Your task to perform on an android device: Open Android settings Image 0: 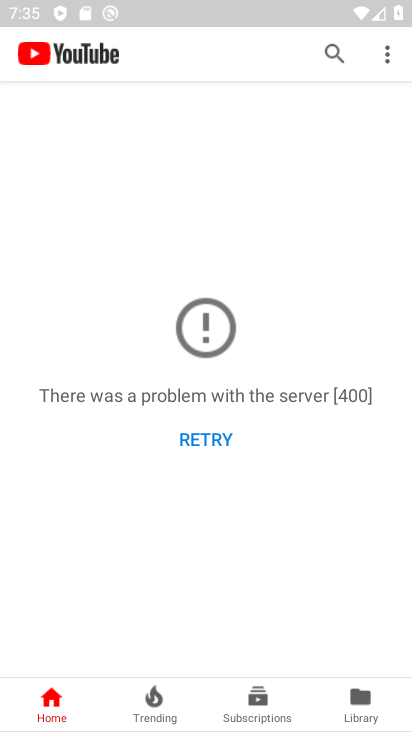
Step 0: press home button
Your task to perform on an android device: Open Android settings Image 1: 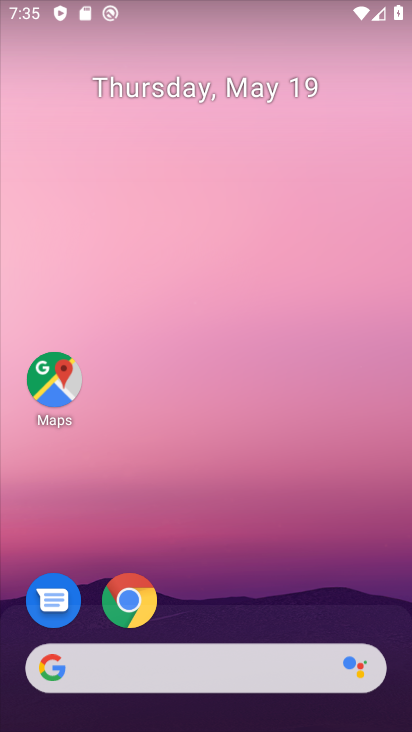
Step 1: drag from (329, 605) to (374, 58)
Your task to perform on an android device: Open Android settings Image 2: 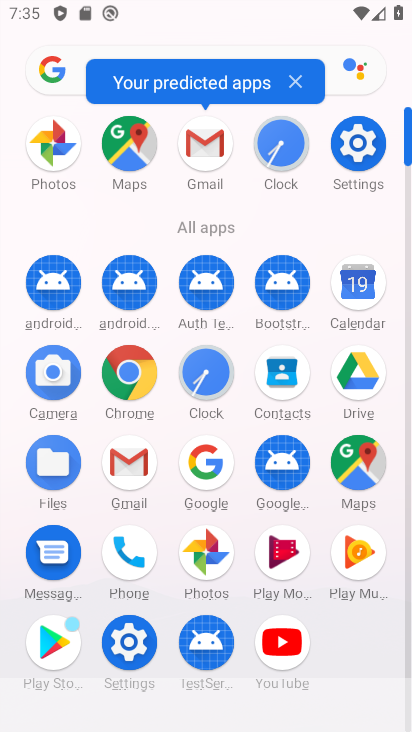
Step 2: click (368, 166)
Your task to perform on an android device: Open Android settings Image 3: 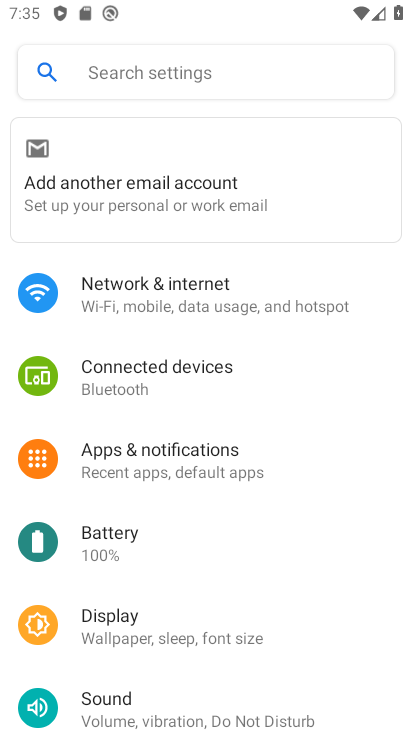
Step 3: drag from (350, 580) to (344, 442)
Your task to perform on an android device: Open Android settings Image 4: 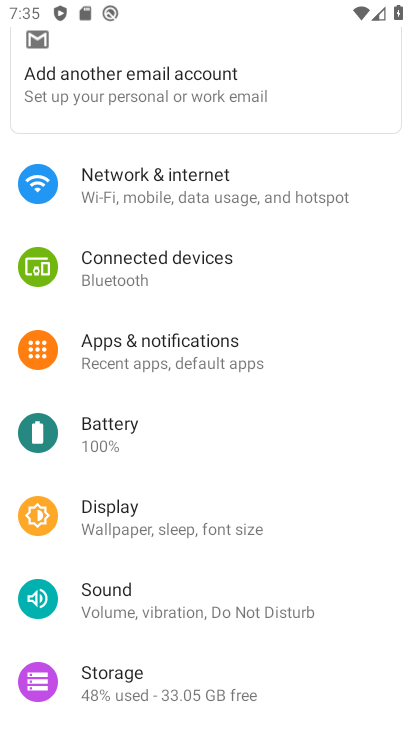
Step 4: drag from (364, 560) to (365, 437)
Your task to perform on an android device: Open Android settings Image 5: 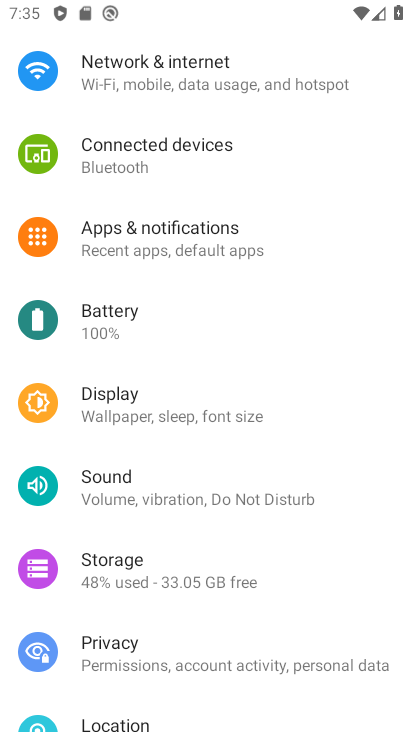
Step 5: drag from (365, 567) to (363, 455)
Your task to perform on an android device: Open Android settings Image 6: 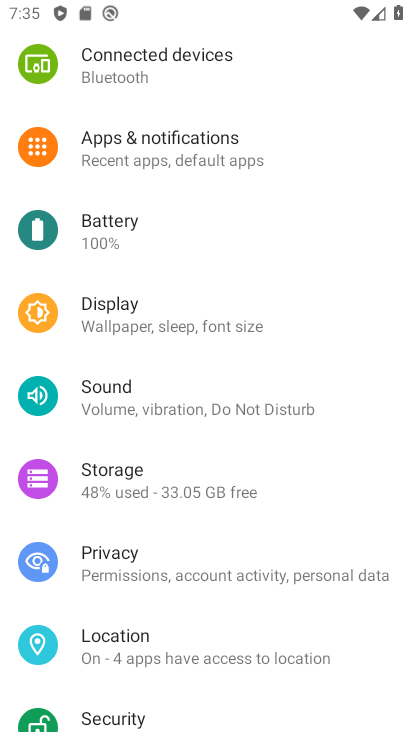
Step 6: drag from (363, 629) to (359, 488)
Your task to perform on an android device: Open Android settings Image 7: 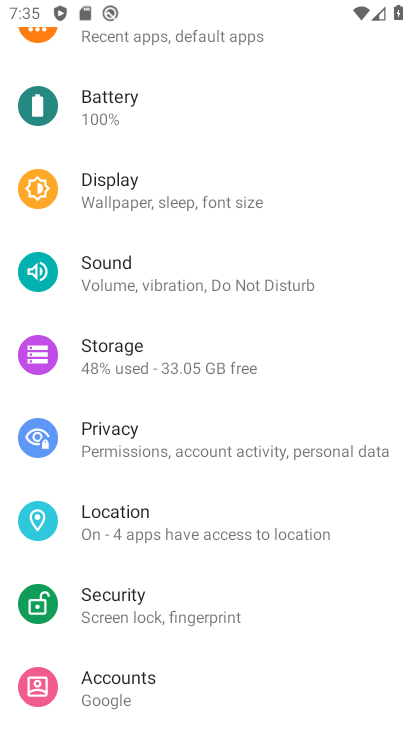
Step 7: drag from (361, 626) to (361, 486)
Your task to perform on an android device: Open Android settings Image 8: 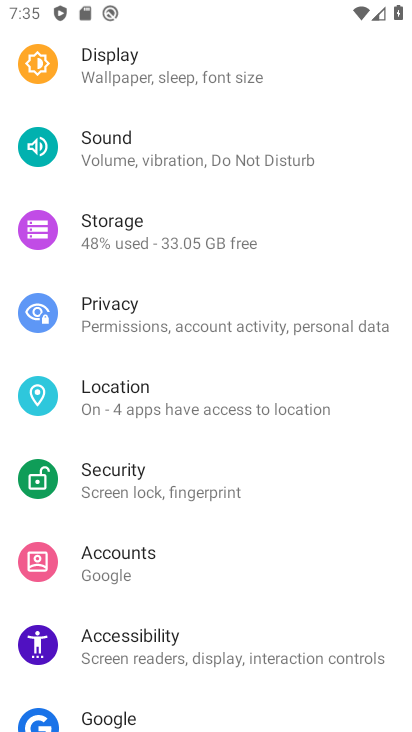
Step 8: drag from (366, 606) to (367, 396)
Your task to perform on an android device: Open Android settings Image 9: 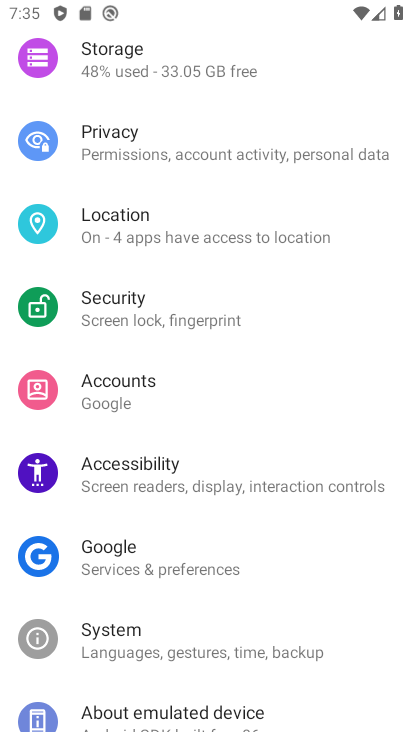
Step 9: drag from (363, 556) to (362, 433)
Your task to perform on an android device: Open Android settings Image 10: 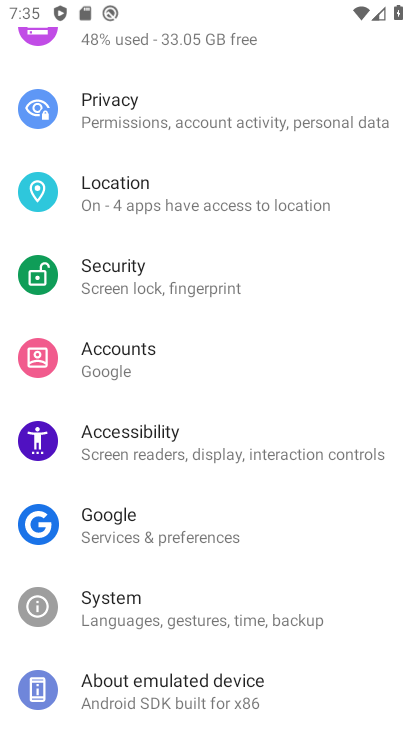
Step 10: click (334, 617)
Your task to perform on an android device: Open Android settings Image 11: 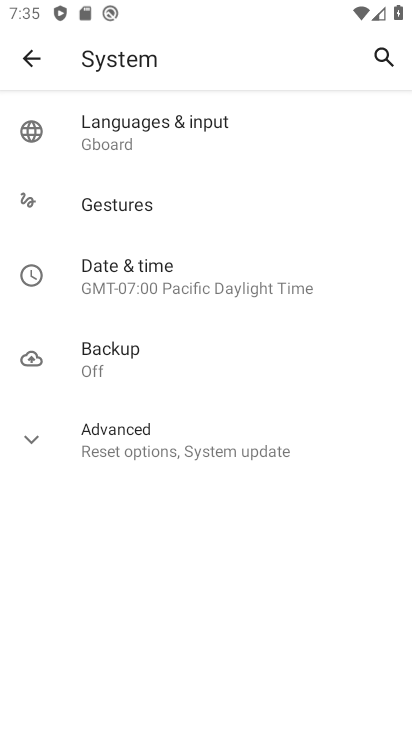
Step 11: click (292, 449)
Your task to perform on an android device: Open Android settings Image 12: 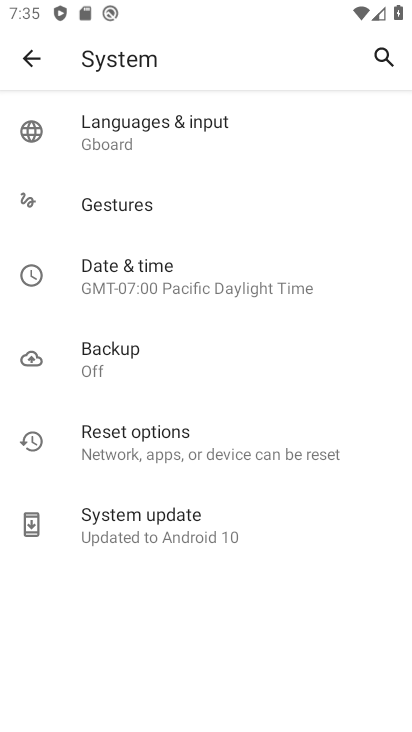
Step 12: task complete